Your task to perform on an android device: Go to location settings Image 0: 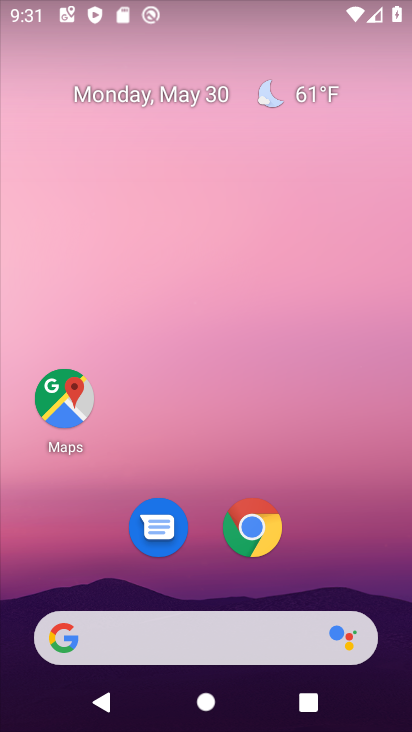
Step 0: drag from (312, 569) to (289, 38)
Your task to perform on an android device: Go to location settings Image 1: 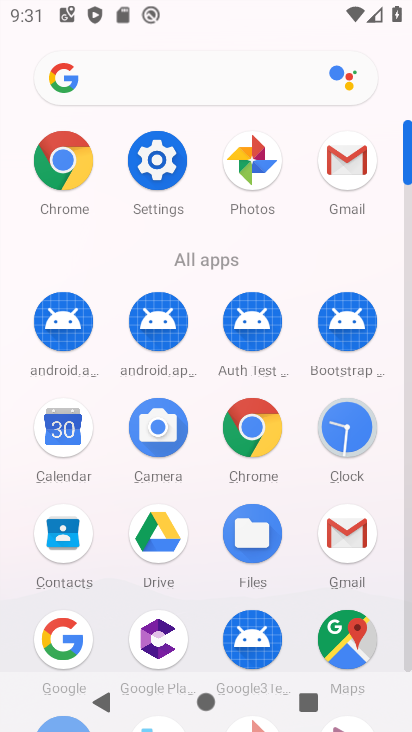
Step 1: click (162, 169)
Your task to perform on an android device: Go to location settings Image 2: 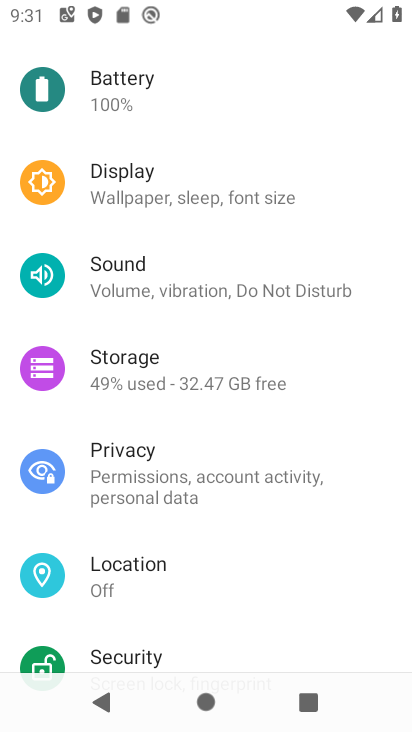
Step 2: click (212, 576)
Your task to perform on an android device: Go to location settings Image 3: 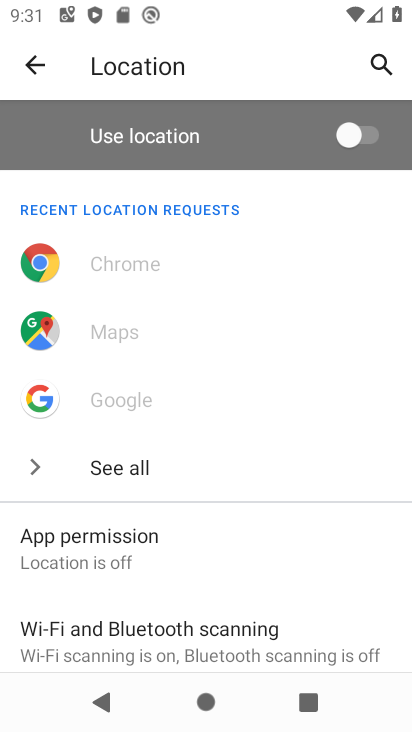
Step 3: task complete